Your task to perform on an android device: Go to privacy settings Image 0: 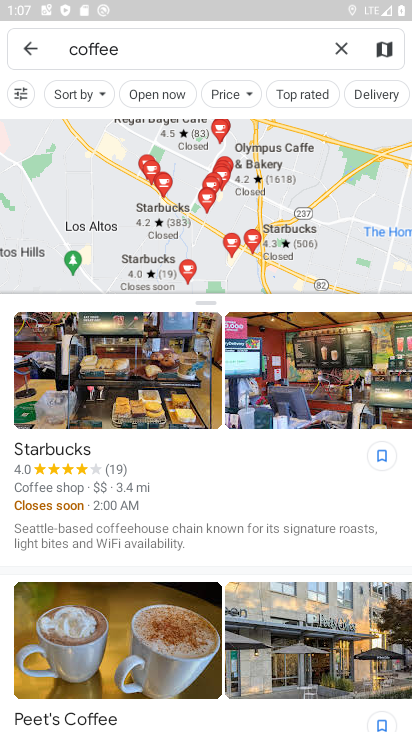
Step 0: press home button
Your task to perform on an android device: Go to privacy settings Image 1: 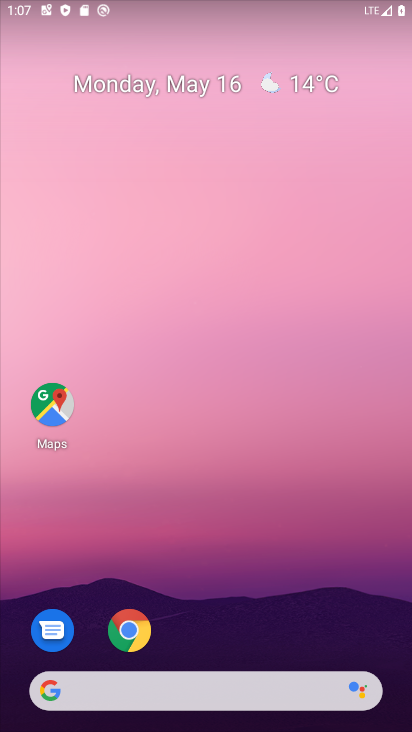
Step 1: drag from (316, 641) to (300, 90)
Your task to perform on an android device: Go to privacy settings Image 2: 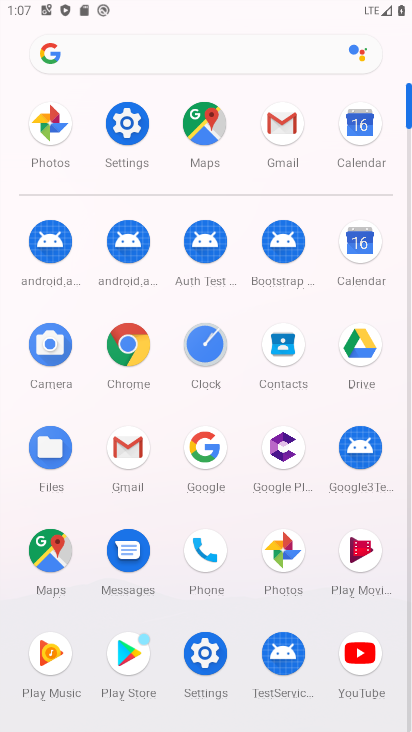
Step 2: click (122, 131)
Your task to perform on an android device: Go to privacy settings Image 3: 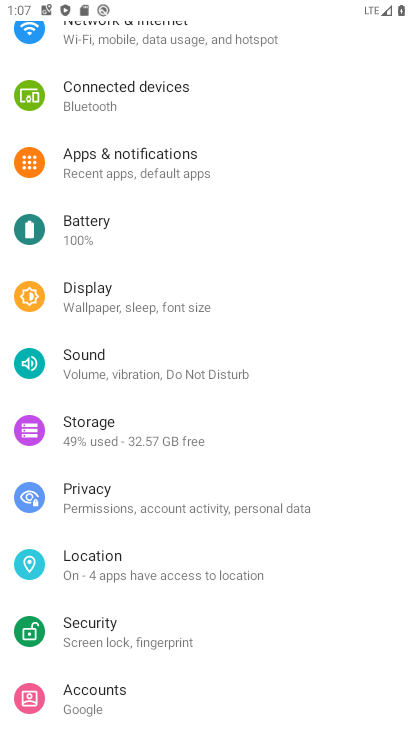
Step 3: click (125, 495)
Your task to perform on an android device: Go to privacy settings Image 4: 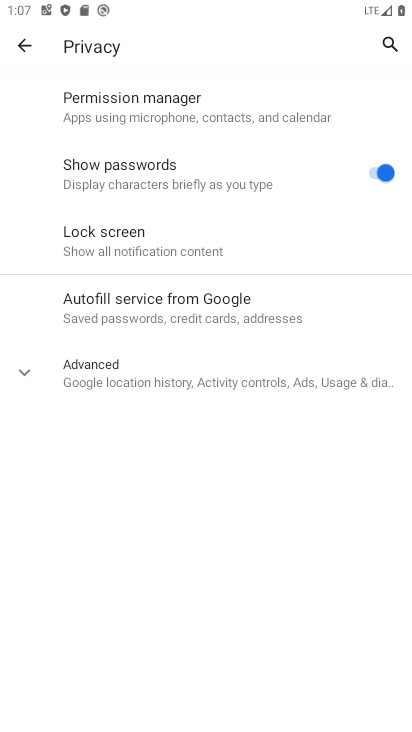
Step 4: task complete